Your task to perform on an android device: Show me recent news Image 0: 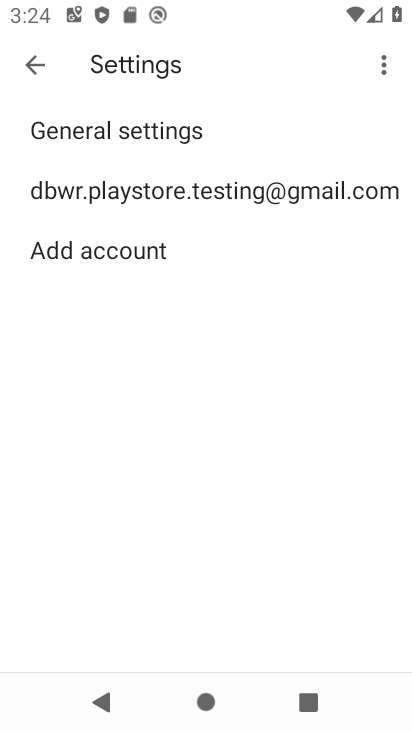
Step 0: press home button
Your task to perform on an android device: Show me recent news Image 1: 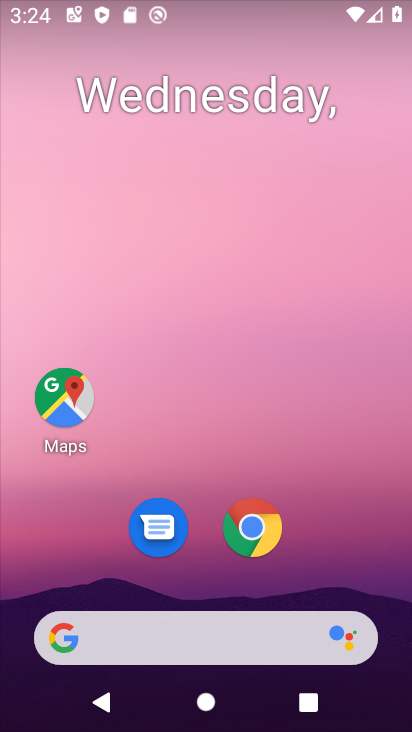
Step 1: task complete